Your task to perform on an android device: search for starred emails in the gmail app Image 0: 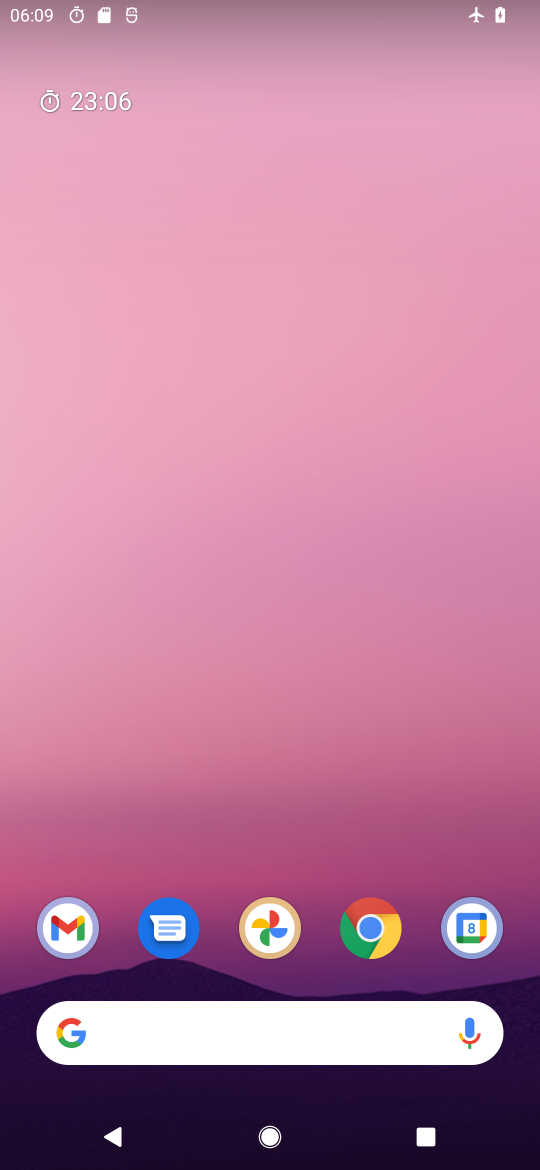
Step 0: drag from (212, 909) to (218, 21)
Your task to perform on an android device: search for starred emails in the gmail app Image 1: 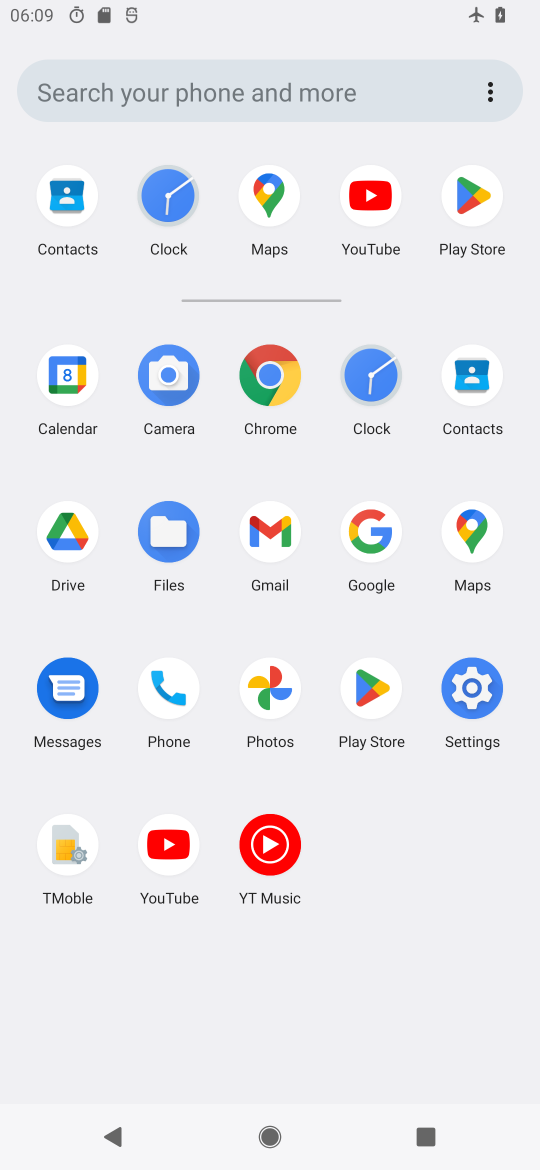
Step 1: click (272, 551)
Your task to perform on an android device: search for starred emails in the gmail app Image 2: 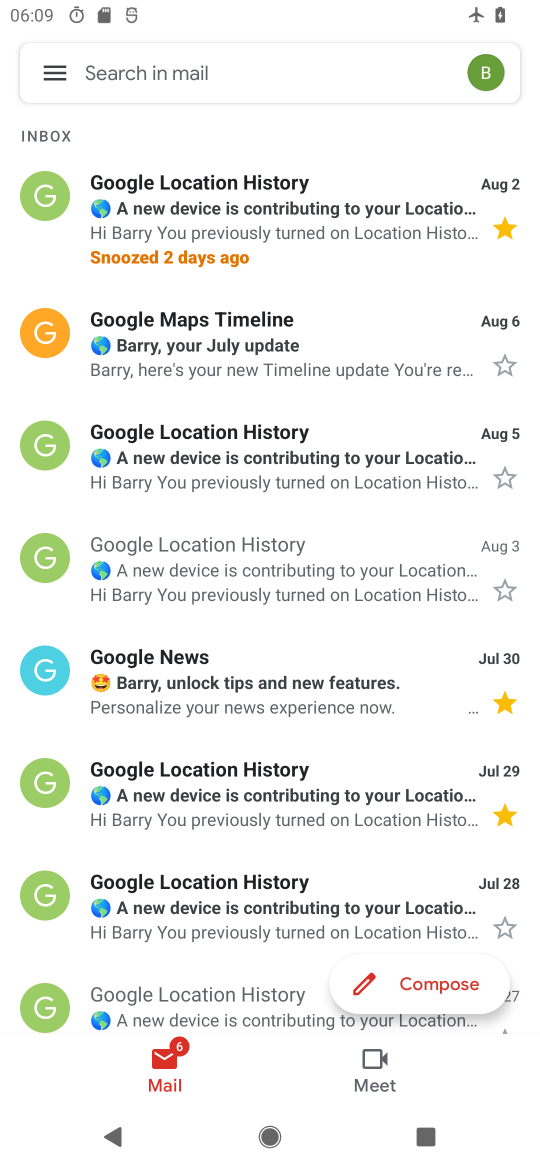
Step 2: click (56, 73)
Your task to perform on an android device: search for starred emails in the gmail app Image 3: 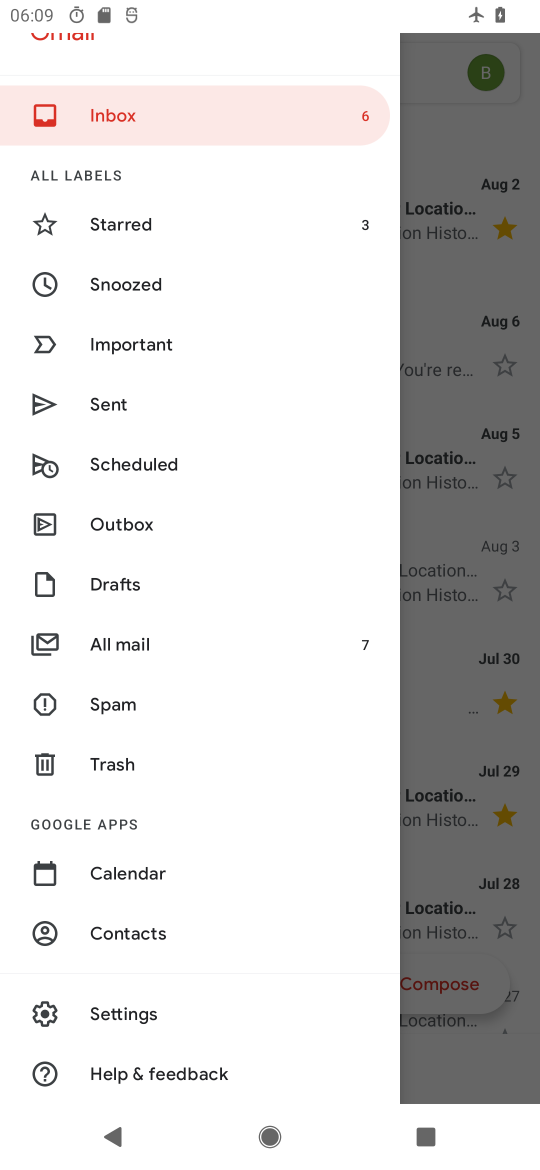
Step 3: click (134, 218)
Your task to perform on an android device: search for starred emails in the gmail app Image 4: 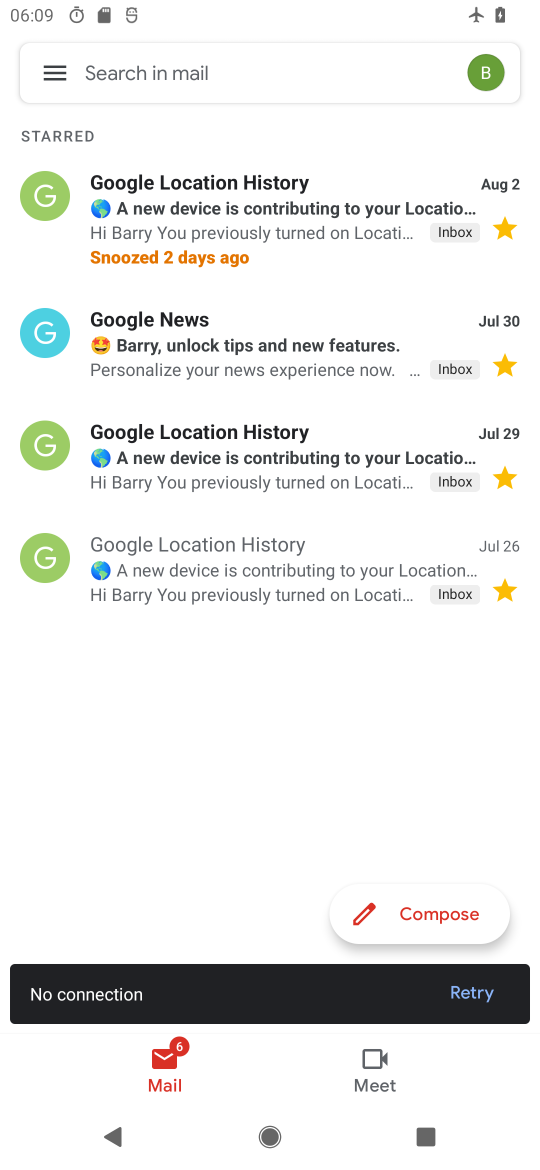
Step 4: task complete